Your task to perform on an android device: Go to sound settings Image 0: 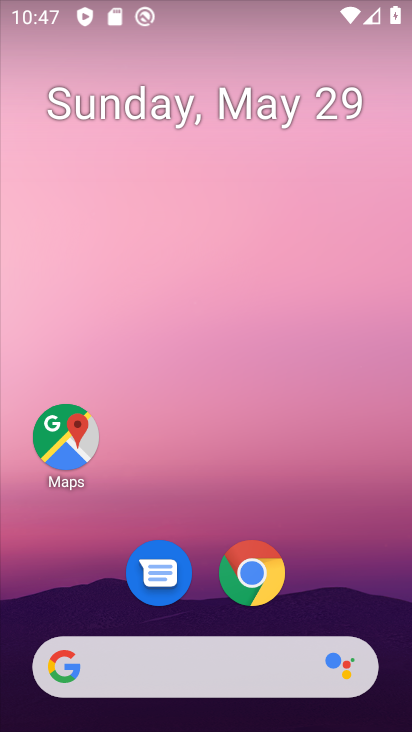
Step 0: drag from (372, 597) to (306, 196)
Your task to perform on an android device: Go to sound settings Image 1: 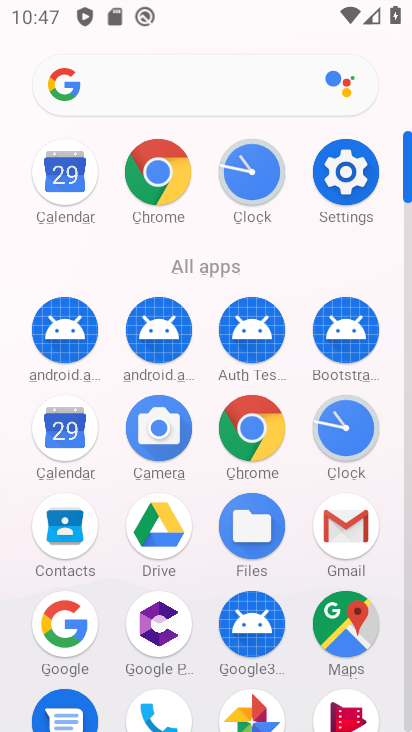
Step 1: click (346, 175)
Your task to perform on an android device: Go to sound settings Image 2: 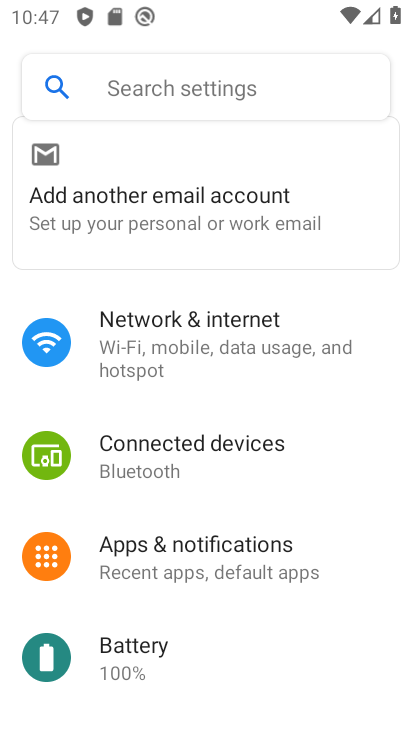
Step 2: drag from (299, 647) to (282, 262)
Your task to perform on an android device: Go to sound settings Image 3: 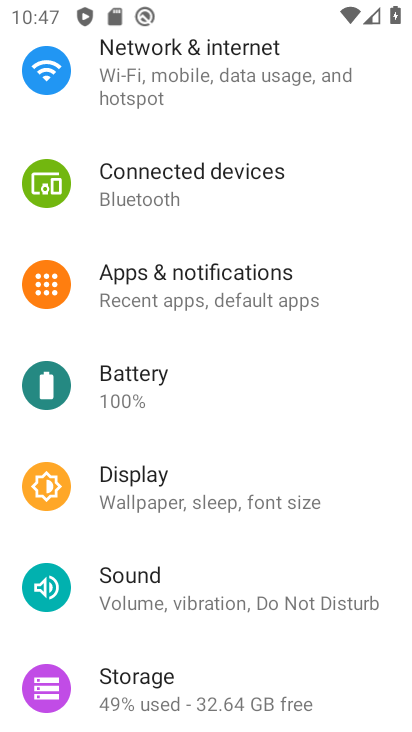
Step 3: click (126, 591)
Your task to perform on an android device: Go to sound settings Image 4: 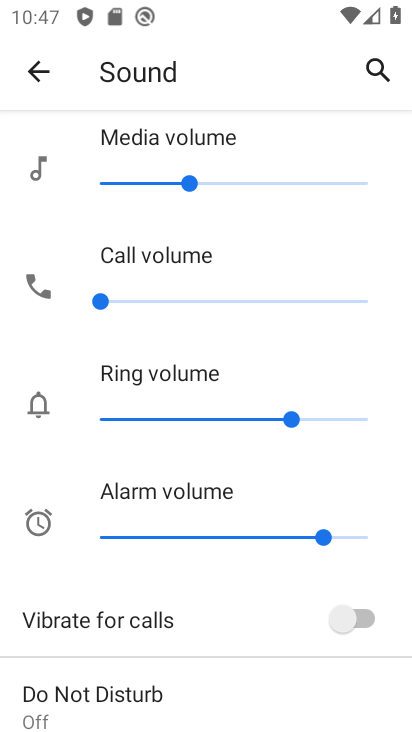
Step 4: task complete